Your task to perform on an android device: Is it going to rain this weekend? Image 0: 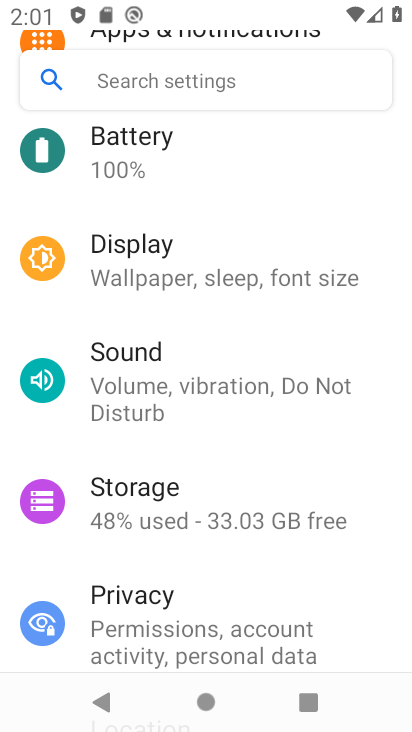
Step 0: press home button
Your task to perform on an android device: Is it going to rain this weekend? Image 1: 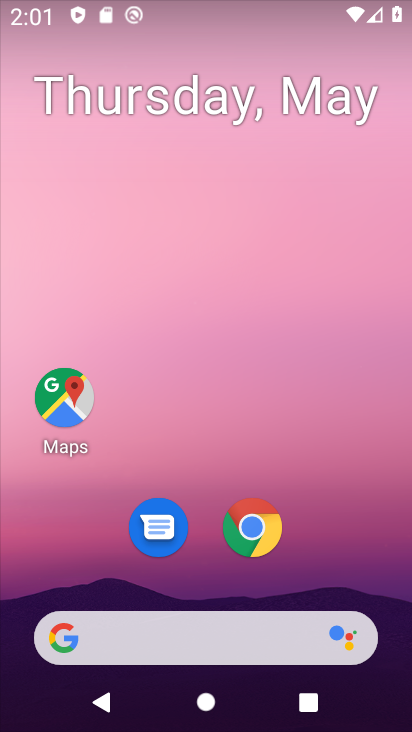
Step 1: click (251, 522)
Your task to perform on an android device: Is it going to rain this weekend? Image 2: 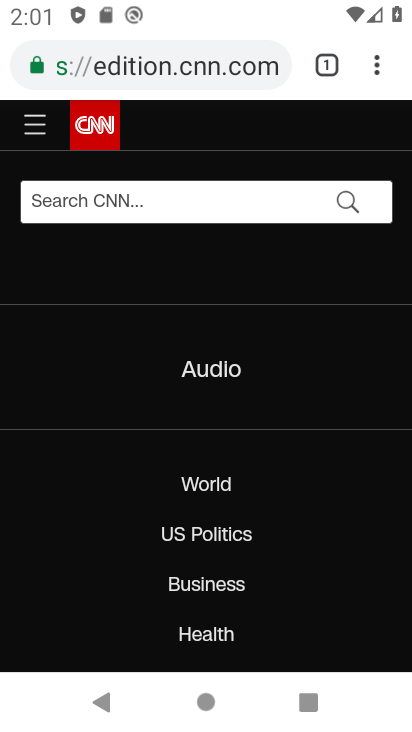
Step 2: click (168, 72)
Your task to perform on an android device: Is it going to rain this weekend? Image 3: 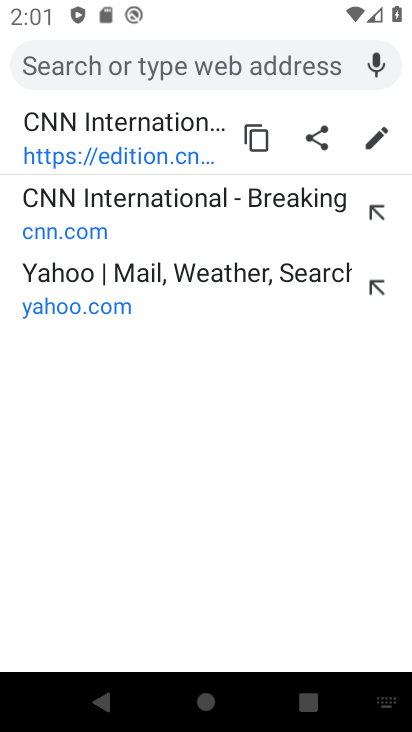
Step 3: type "Is it going to rain this weekend?"
Your task to perform on an android device: Is it going to rain this weekend? Image 4: 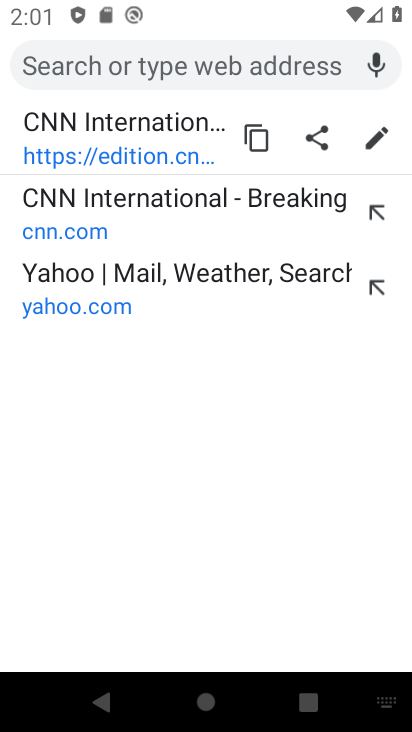
Step 4: click (130, 148)
Your task to perform on an android device: Is it going to rain this weekend? Image 5: 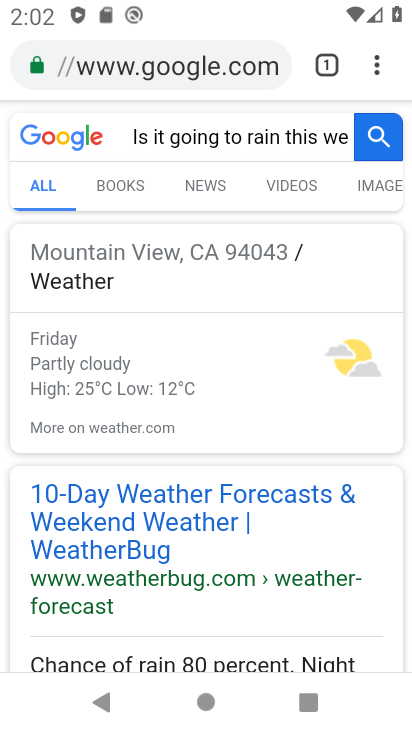
Step 5: task complete